Your task to perform on an android device: manage bookmarks in the chrome app Image 0: 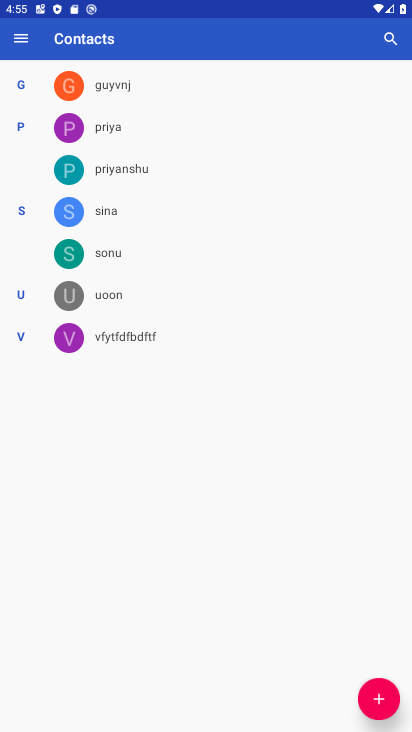
Step 0: press home button
Your task to perform on an android device: manage bookmarks in the chrome app Image 1: 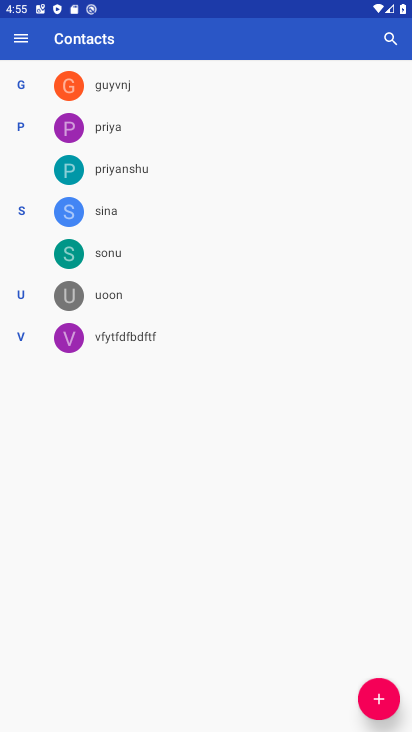
Step 1: press home button
Your task to perform on an android device: manage bookmarks in the chrome app Image 2: 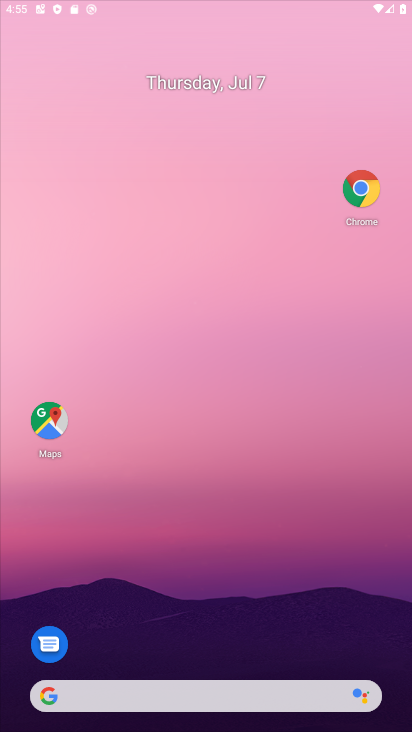
Step 2: press home button
Your task to perform on an android device: manage bookmarks in the chrome app Image 3: 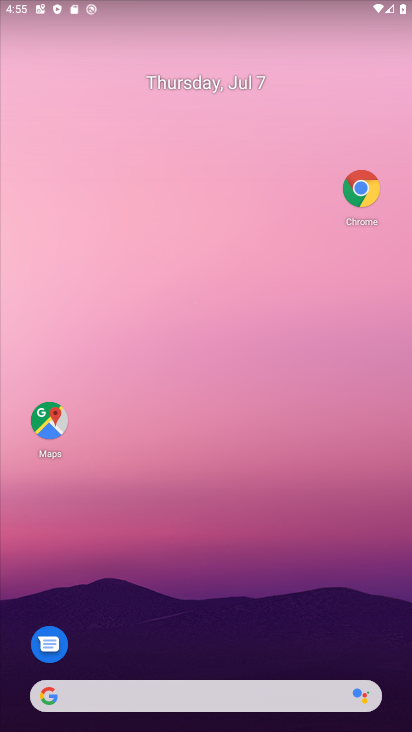
Step 3: press home button
Your task to perform on an android device: manage bookmarks in the chrome app Image 4: 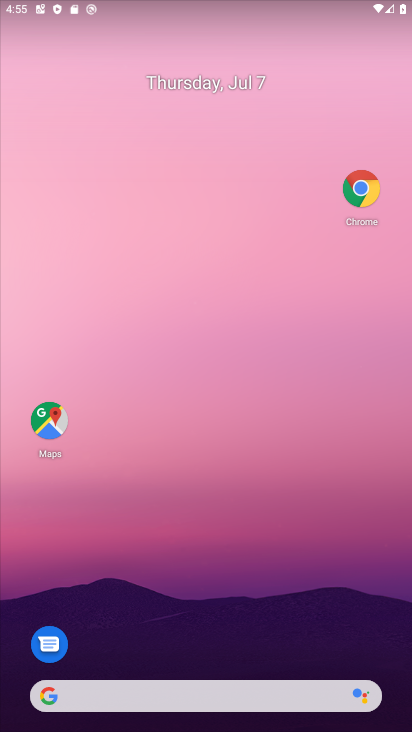
Step 4: press home button
Your task to perform on an android device: manage bookmarks in the chrome app Image 5: 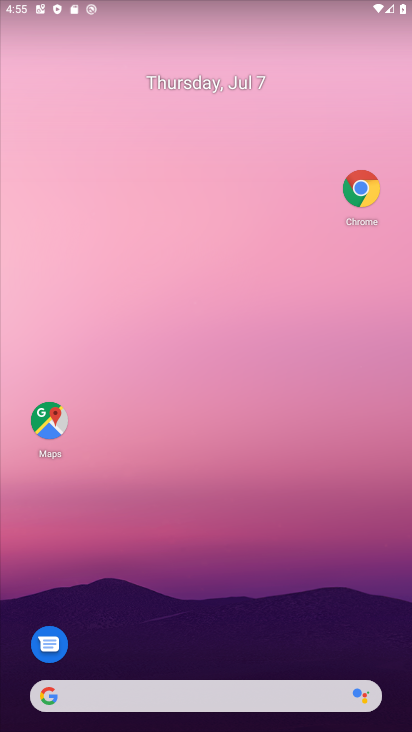
Step 5: drag from (261, 626) to (224, 132)
Your task to perform on an android device: manage bookmarks in the chrome app Image 6: 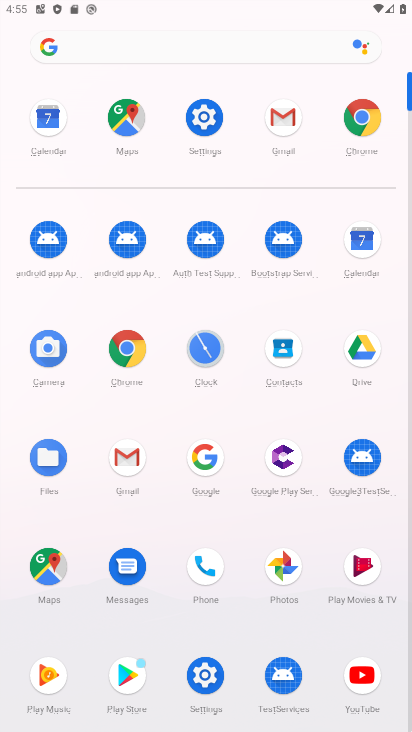
Step 6: click (353, 121)
Your task to perform on an android device: manage bookmarks in the chrome app Image 7: 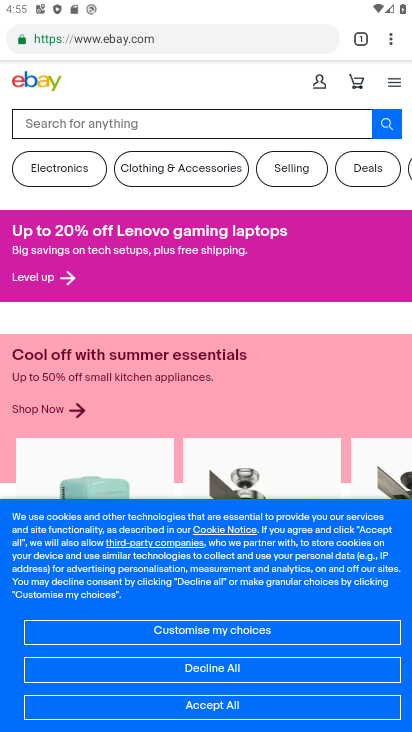
Step 7: task complete